Your task to perform on an android device: Open calendar and show me the fourth week of next month Image 0: 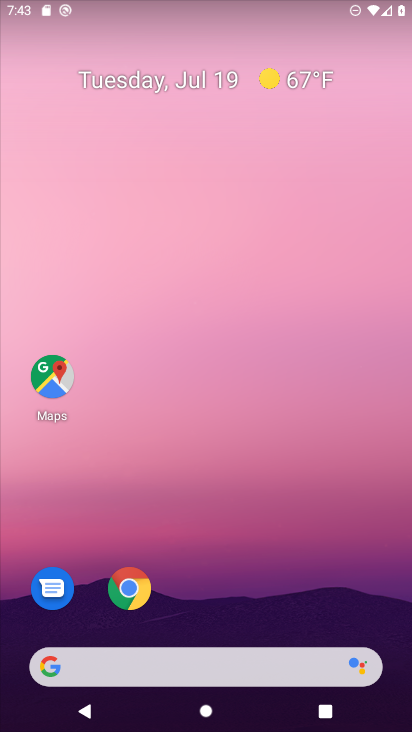
Step 0: drag from (350, 607) to (350, 248)
Your task to perform on an android device: Open calendar and show me the fourth week of next month Image 1: 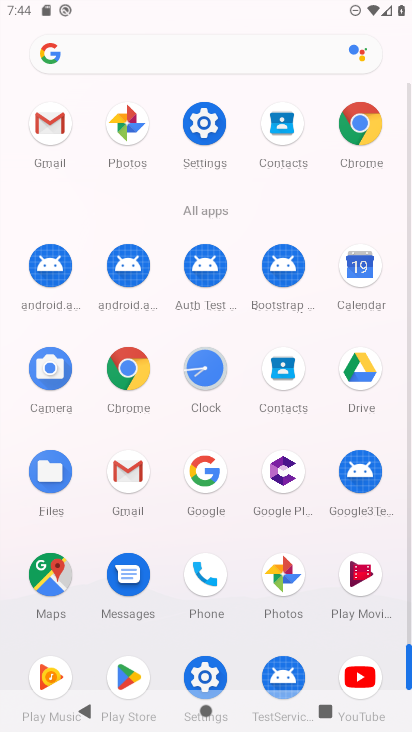
Step 1: click (363, 270)
Your task to perform on an android device: Open calendar and show me the fourth week of next month Image 2: 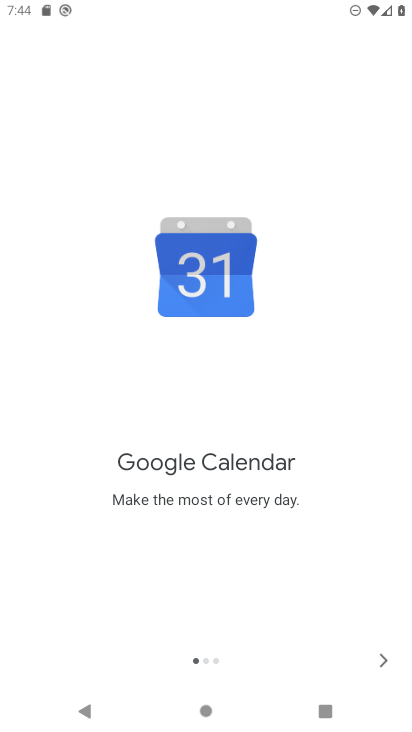
Step 2: click (382, 660)
Your task to perform on an android device: Open calendar and show me the fourth week of next month Image 3: 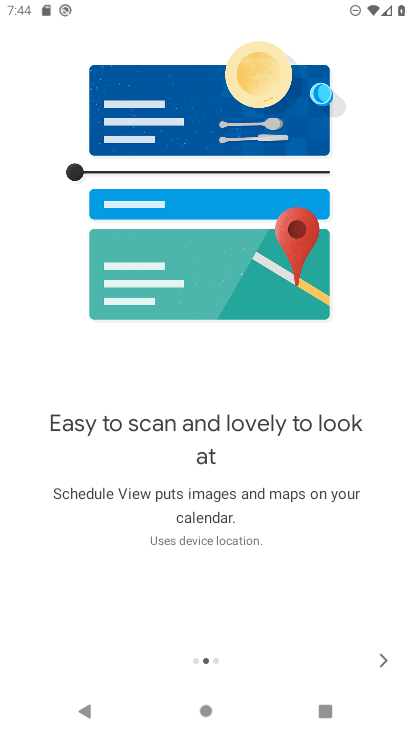
Step 3: click (382, 660)
Your task to perform on an android device: Open calendar and show me the fourth week of next month Image 4: 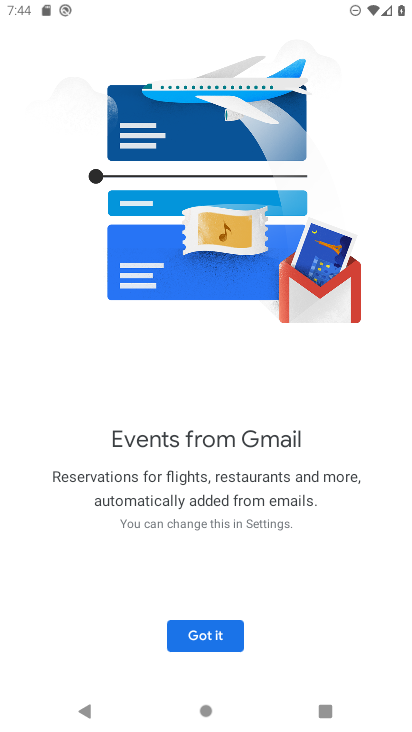
Step 4: click (226, 643)
Your task to perform on an android device: Open calendar and show me the fourth week of next month Image 5: 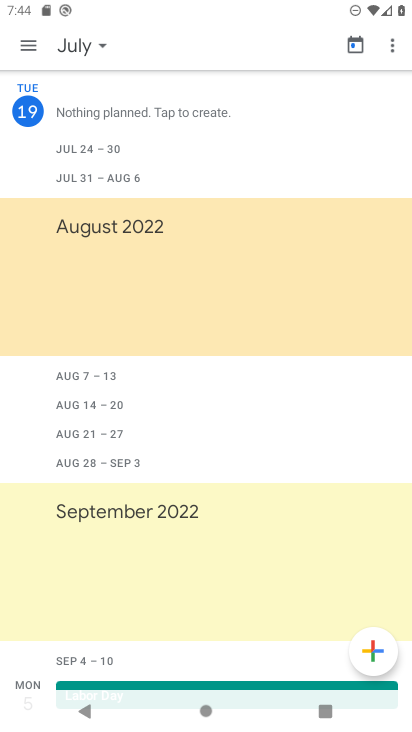
Step 5: click (98, 40)
Your task to perform on an android device: Open calendar and show me the fourth week of next month Image 6: 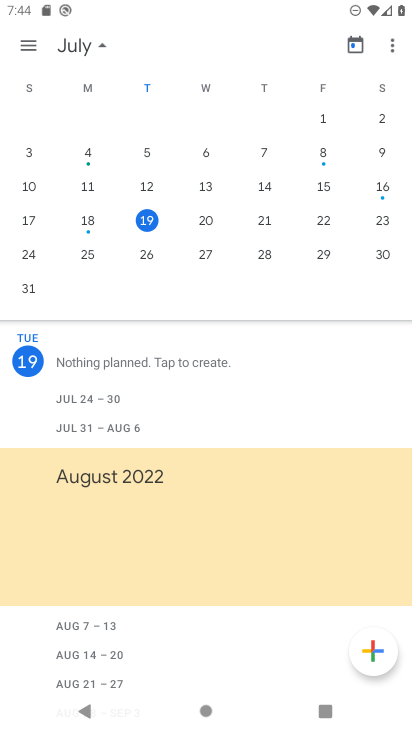
Step 6: drag from (391, 138) to (2, 123)
Your task to perform on an android device: Open calendar and show me the fourth week of next month Image 7: 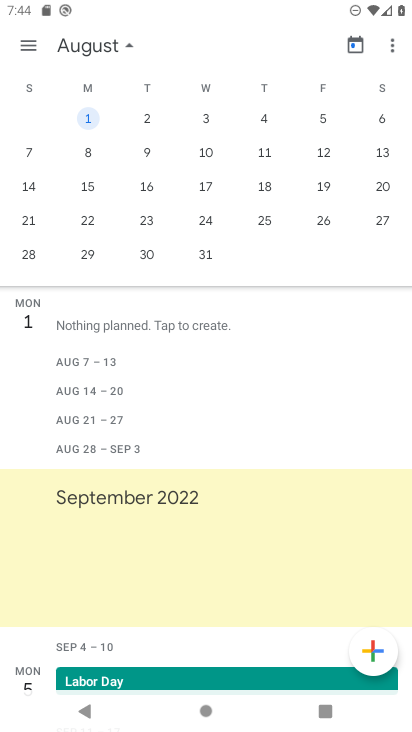
Step 7: click (88, 222)
Your task to perform on an android device: Open calendar and show me the fourth week of next month Image 8: 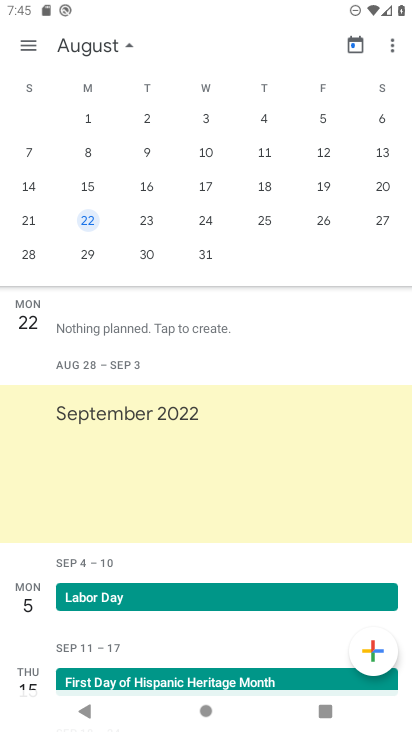
Step 8: task complete